Your task to perform on an android device: Find coffee shops on Maps Image 0: 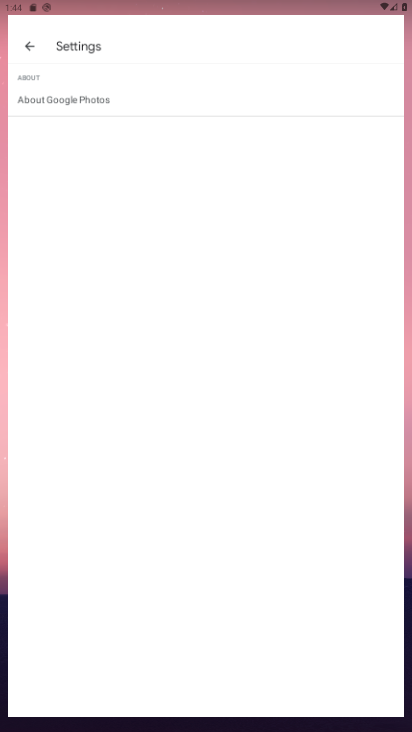
Step 0: press home button
Your task to perform on an android device: Find coffee shops on Maps Image 1: 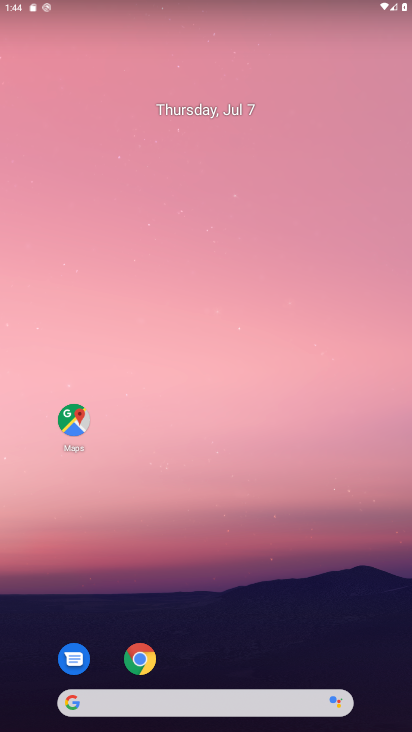
Step 1: click (71, 419)
Your task to perform on an android device: Find coffee shops on Maps Image 2: 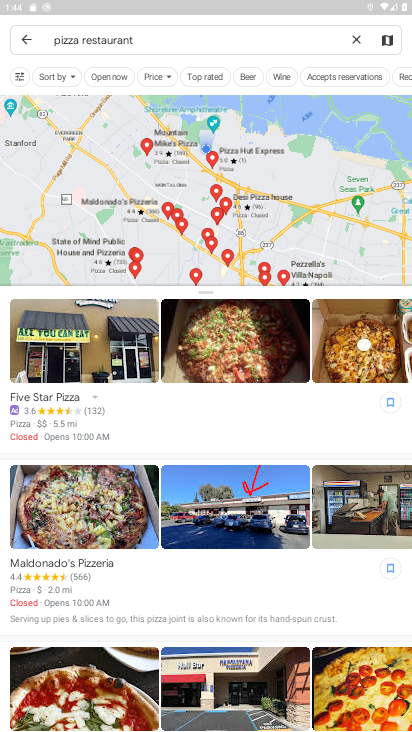
Step 2: click (354, 42)
Your task to perform on an android device: Find coffee shops on Maps Image 3: 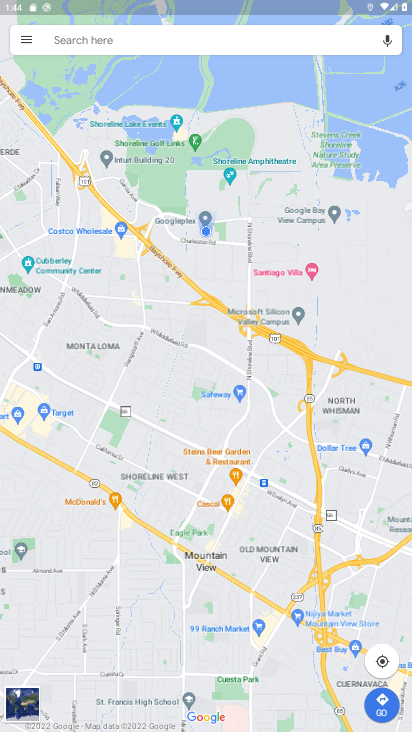
Step 3: click (73, 37)
Your task to perform on an android device: Find coffee shops on Maps Image 4: 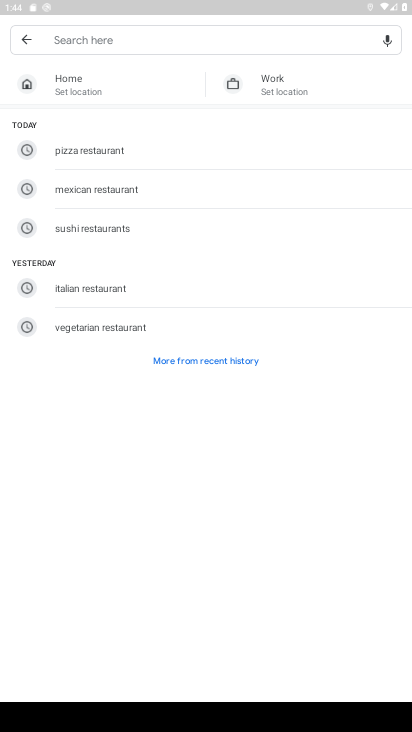
Step 4: type "coffee"
Your task to perform on an android device: Find coffee shops on Maps Image 5: 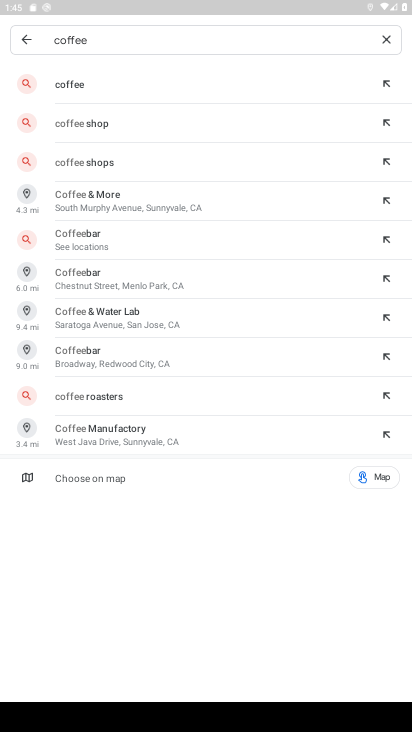
Step 5: click (120, 125)
Your task to perform on an android device: Find coffee shops on Maps Image 6: 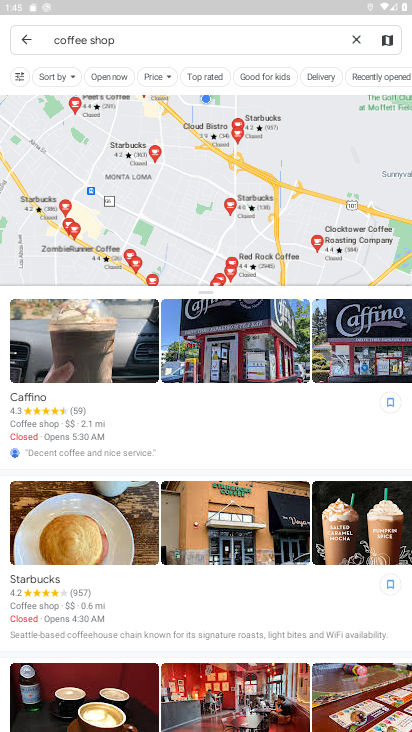
Step 6: task complete